Your task to perform on an android device: Play the last video I watched on Youtube Image 0: 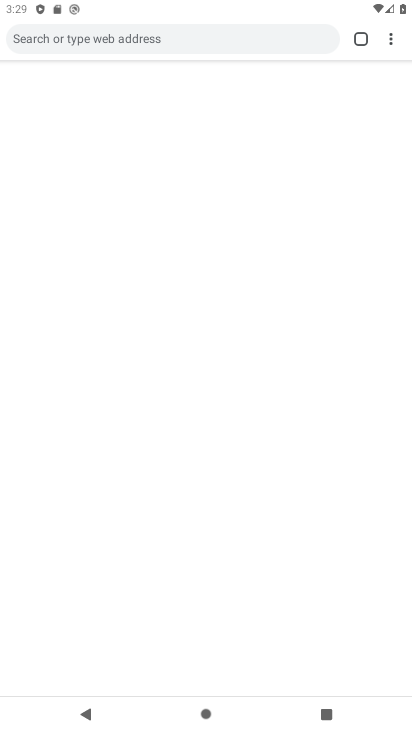
Step 0: click (259, 559)
Your task to perform on an android device: Play the last video I watched on Youtube Image 1: 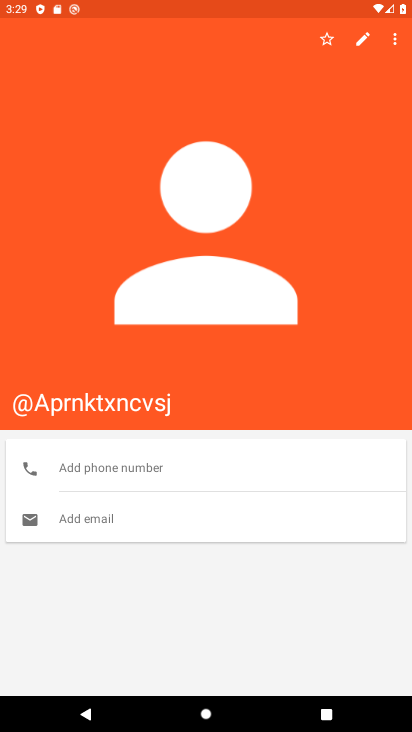
Step 1: press home button
Your task to perform on an android device: Play the last video I watched on Youtube Image 2: 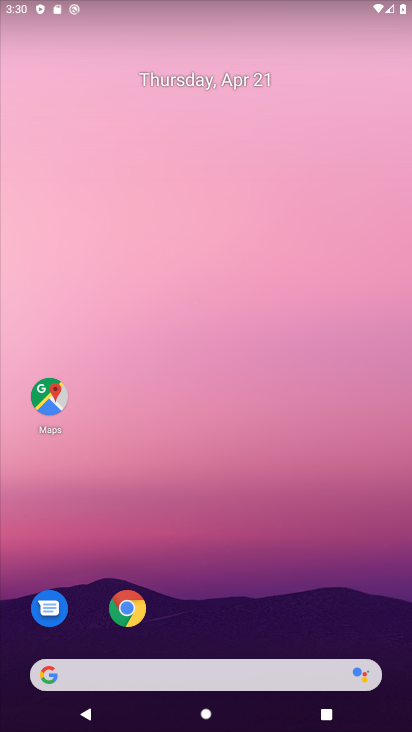
Step 2: drag from (235, 569) to (323, 38)
Your task to perform on an android device: Play the last video I watched on Youtube Image 3: 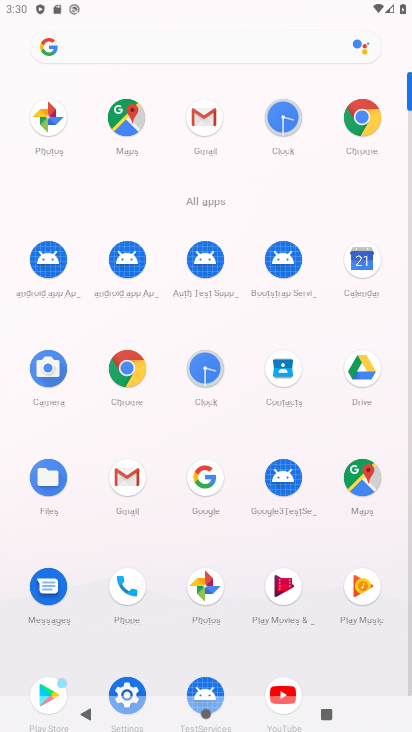
Step 3: click (284, 680)
Your task to perform on an android device: Play the last video I watched on Youtube Image 4: 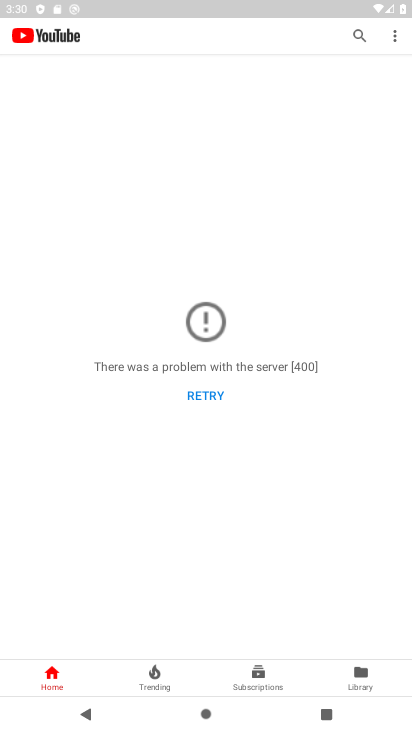
Step 4: click (369, 679)
Your task to perform on an android device: Play the last video I watched on Youtube Image 5: 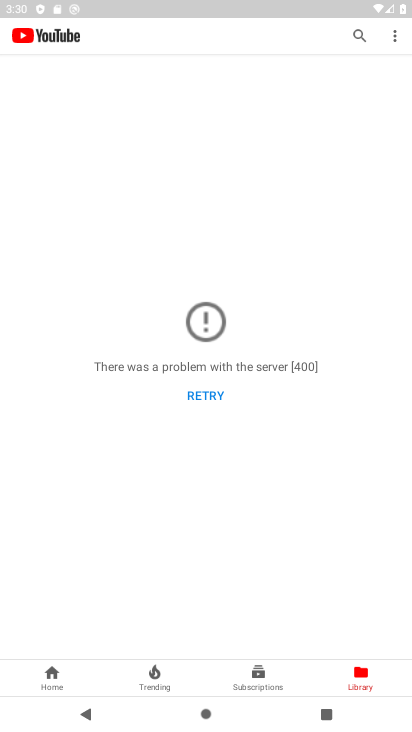
Step 5: task complete